Your task to perform on an android device: set the stopwatch Image 0: 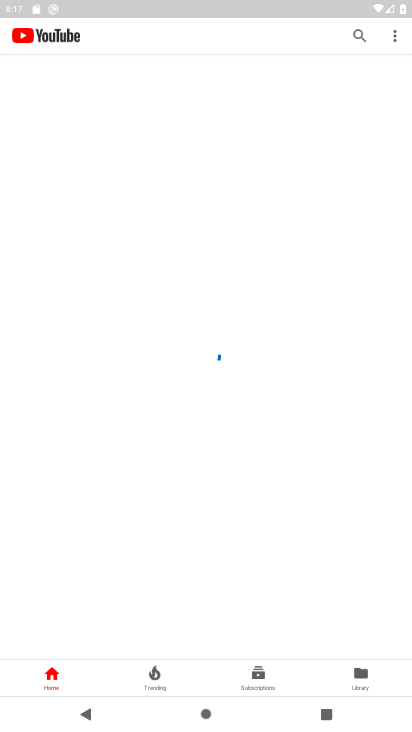
Step 0: press home button
Your task to perform on an android device: set the stopwatch Image 1: 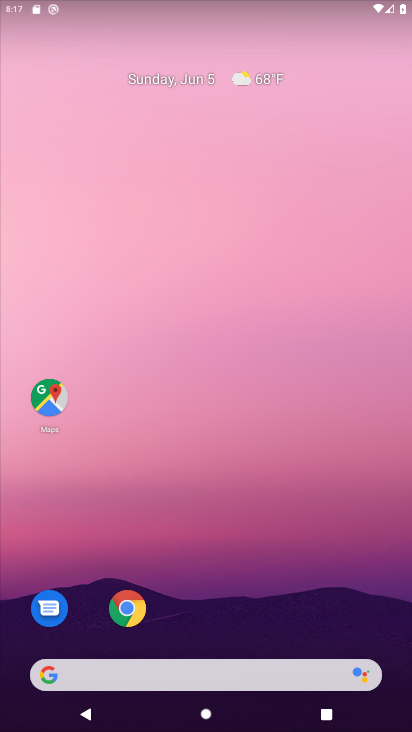
Step 1: drag from (385, 568) to (332, 34)
Your task to perform on an android device: set the stopwatch Image 2: 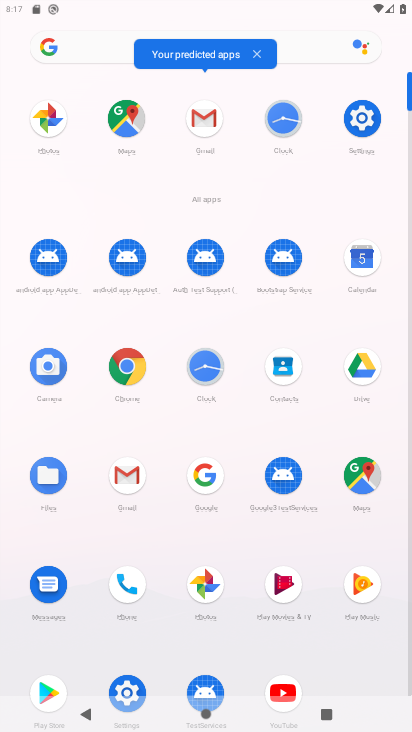
Step 2: click (213, 376)
Your task to perform on an android device: set the stopwatch Image 3: 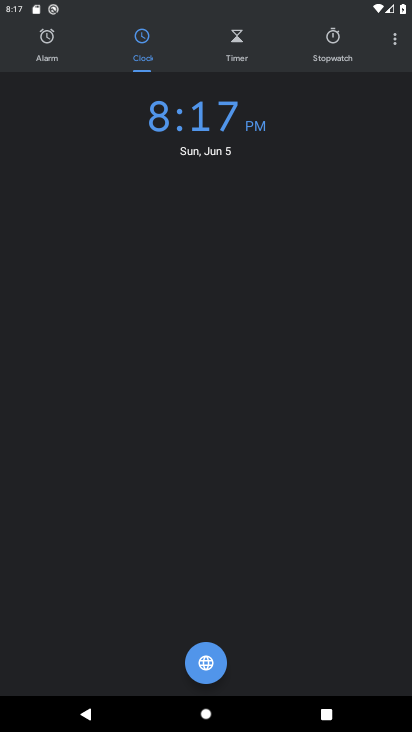
Step 3: click (327, 55)
Your task to perform on an android device: set the stopwatch Image 4: 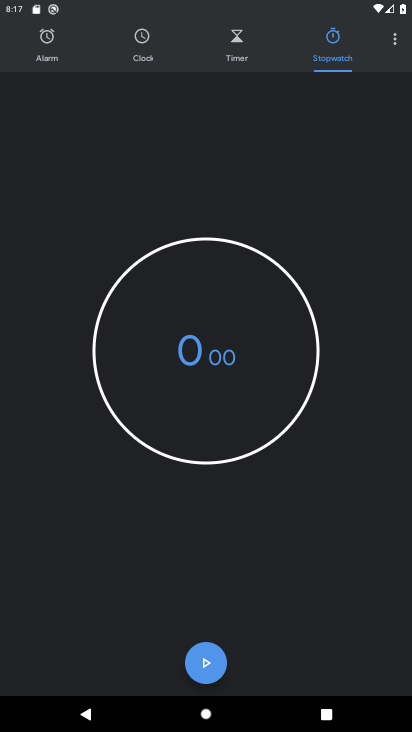
Step 4: click (204, 673)
Your task to perform on an android device: set the stopwatch Image 5: 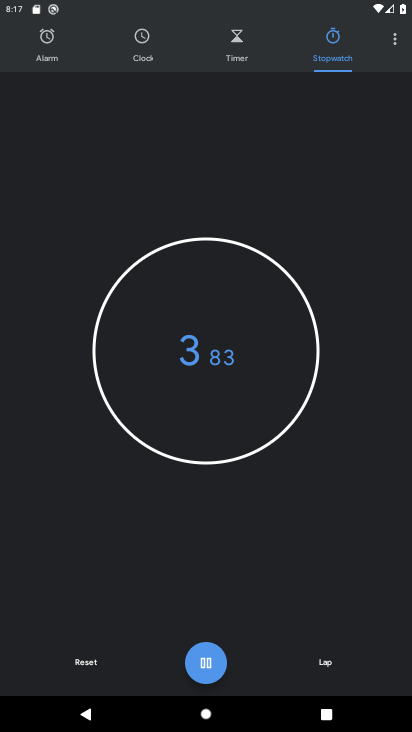
Step 5: click (344, 663)
Your task to perform on an android device: set the stopwatch Image 6: 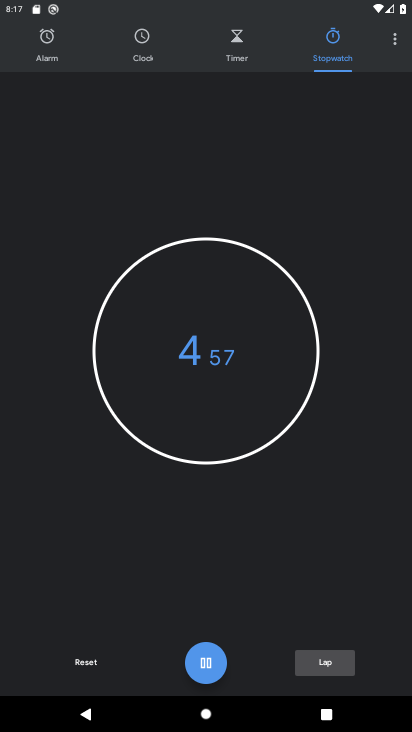
Step 6: click (326, 664)
Your task to perform on an android device: set the stopwatch Image 7: 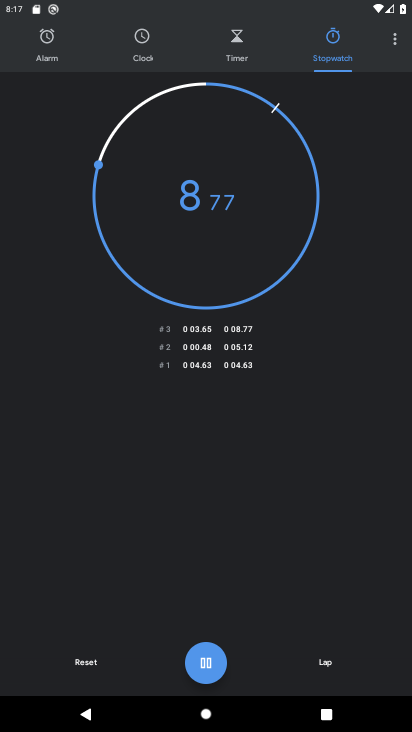
Step 7: click (222, 257)
Your task to perform on an android device: set the stopwatch Image 8: 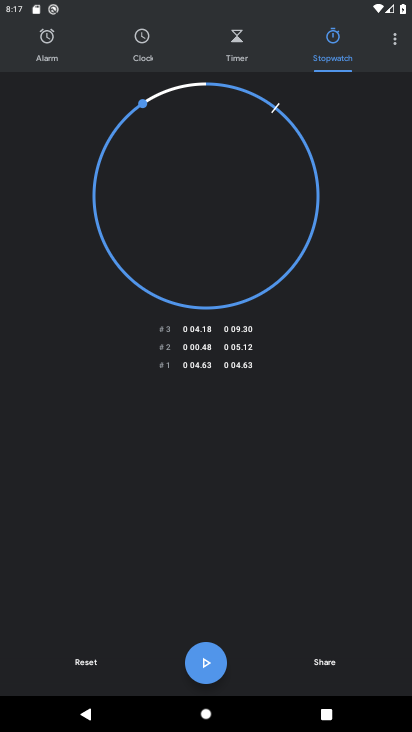
Step 8: click (213, 666)
Your task to perform on an android device: set the stopwatch Image 9: 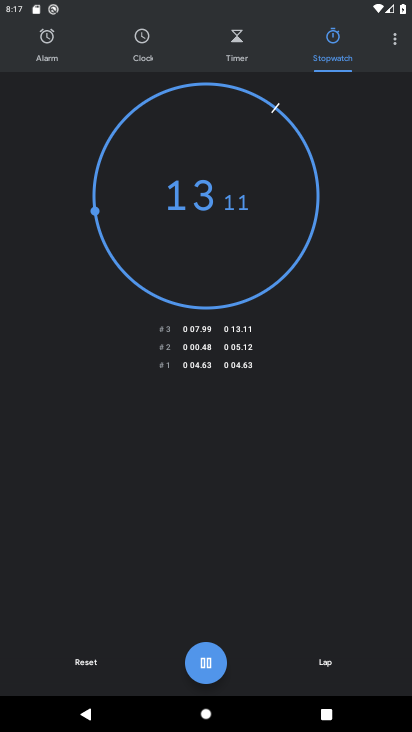
Step 9: click (207, 668)
Your task to perform on an android device: set the stopwatch Image 10: 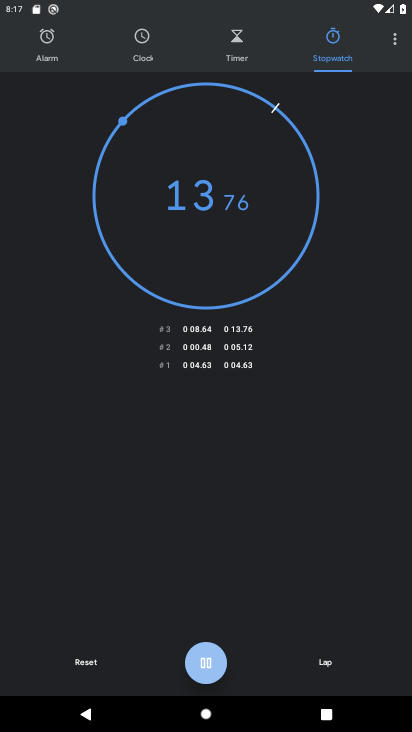
Step 10: task complete